Your task to perform on an android device: open device folders in google photos Image 0: 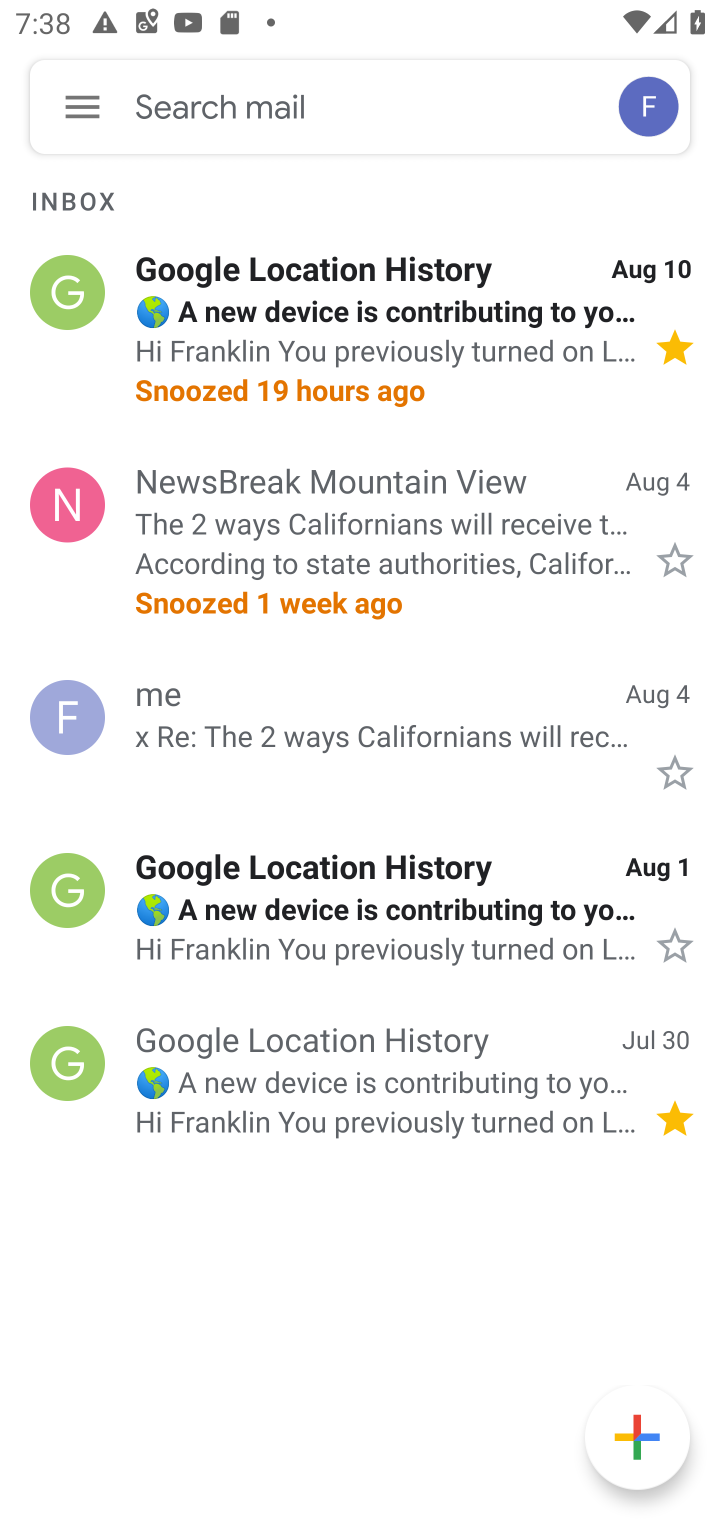
Step 0: press home button
Your task to perform on an android device: open device folders in google photos Image 1: 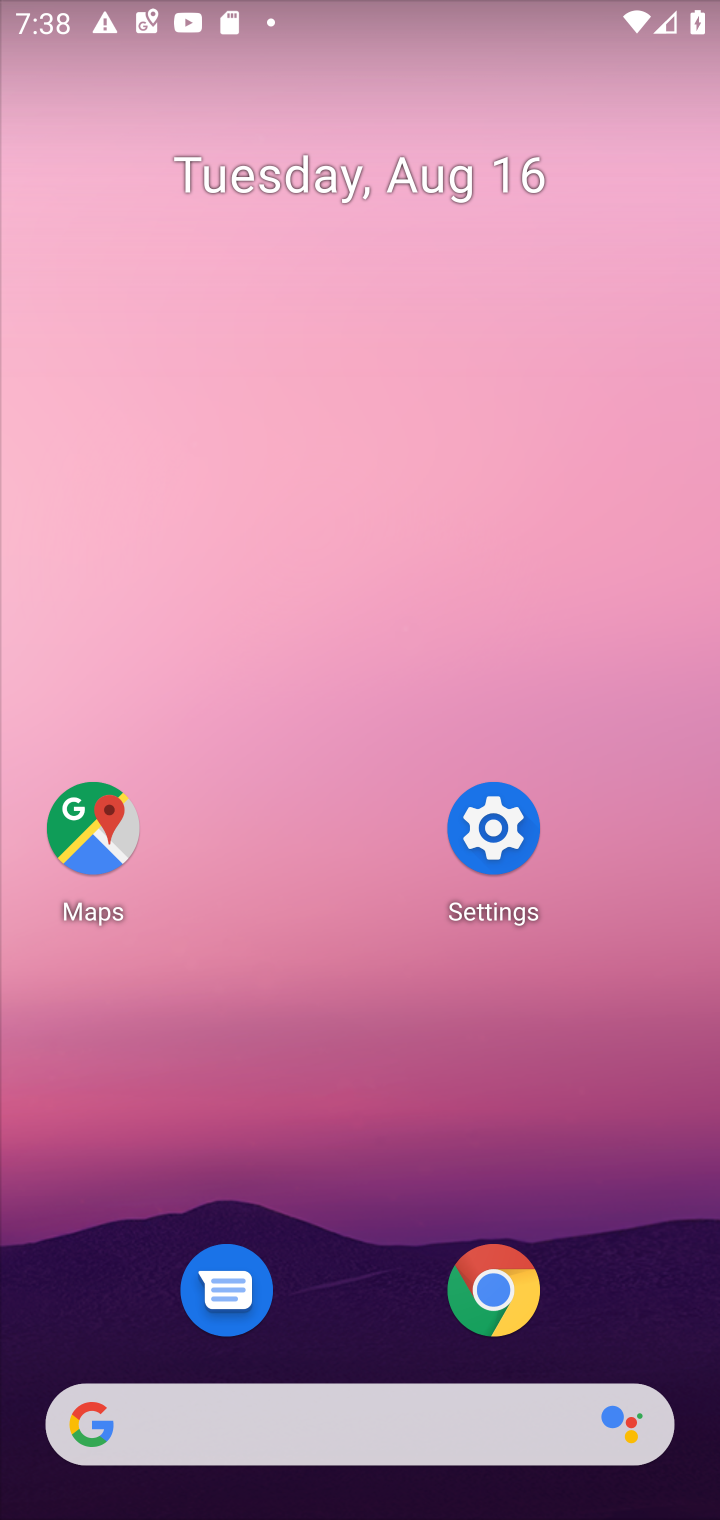
Step 1: drag from (408, 1431) to (432, 323)
Your task to perform on an android device: open device folders in google photos Image 2: 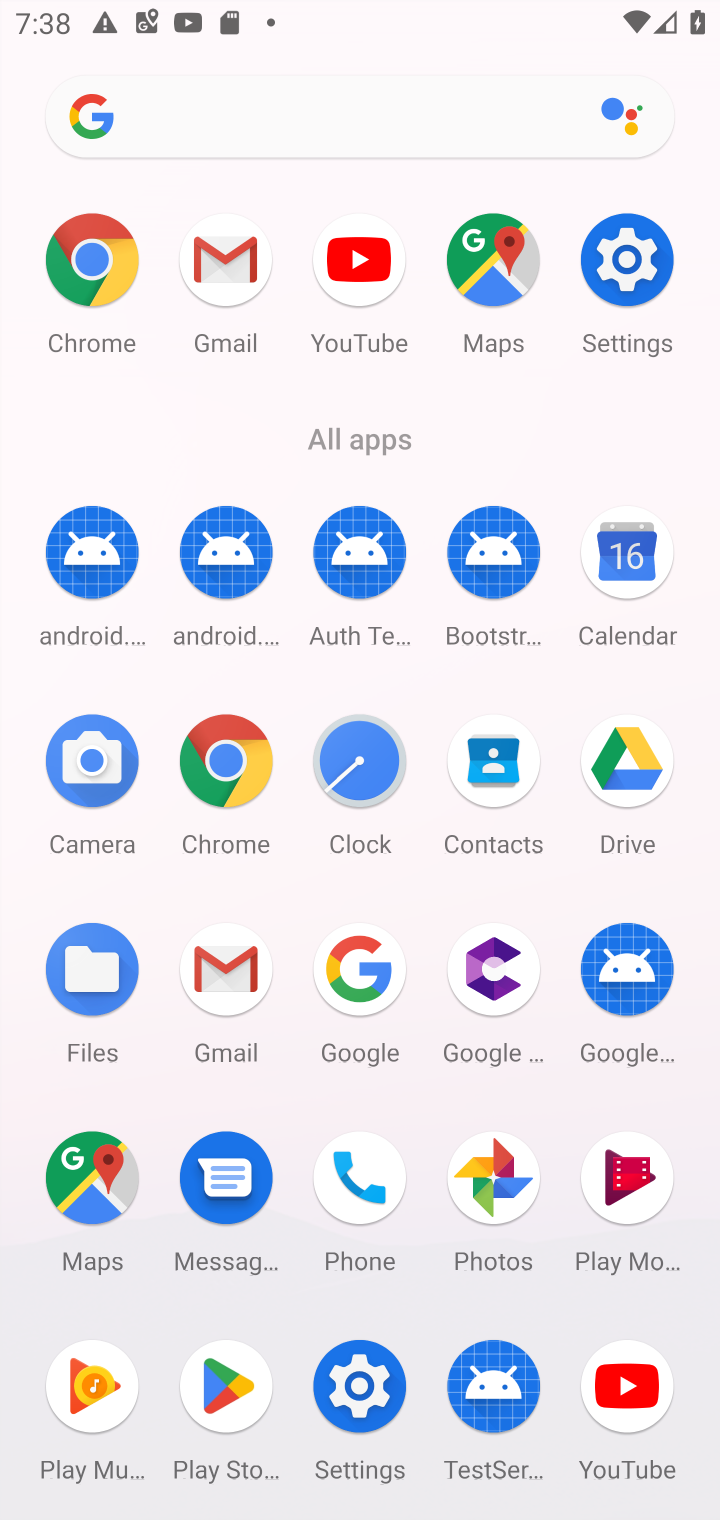
Step 2: click (502, 1169)
Your task to perform on an android device: open device folders in google photos Image 3: 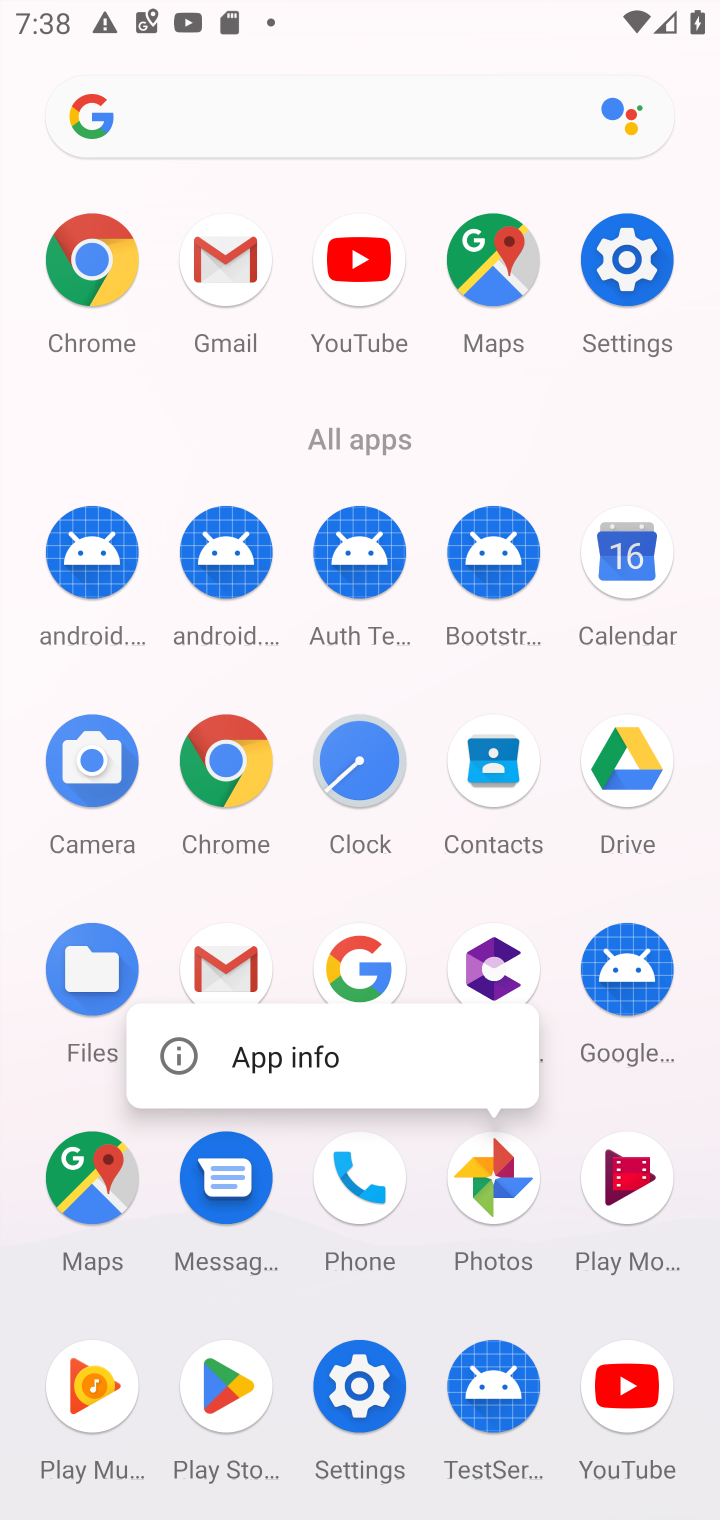
Step 3: click (488, 1178)
Your task to perform on an android device: open device folders in google photos Image 4: 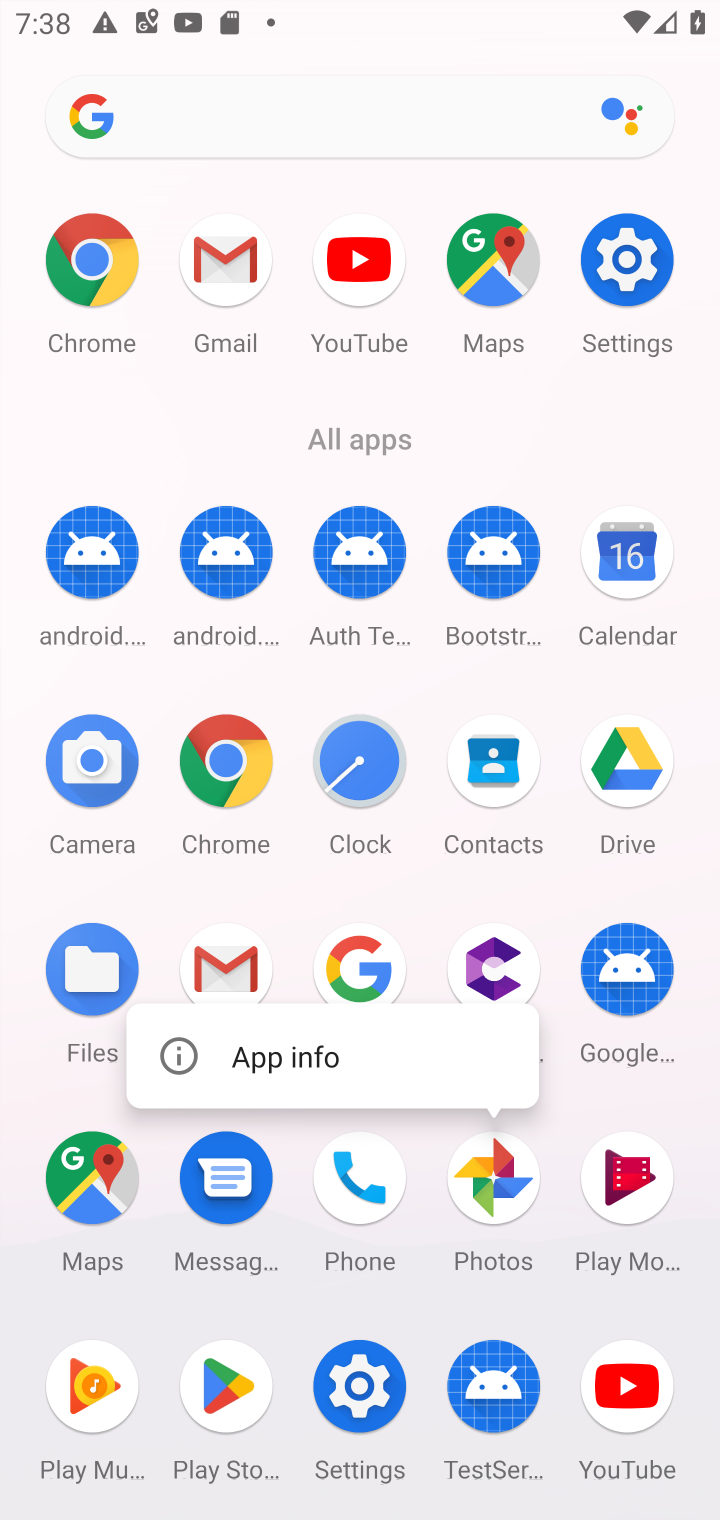
Step 4: click (492, 1186)
Your task to perform on an android device: open device folders in google photos Image 5: 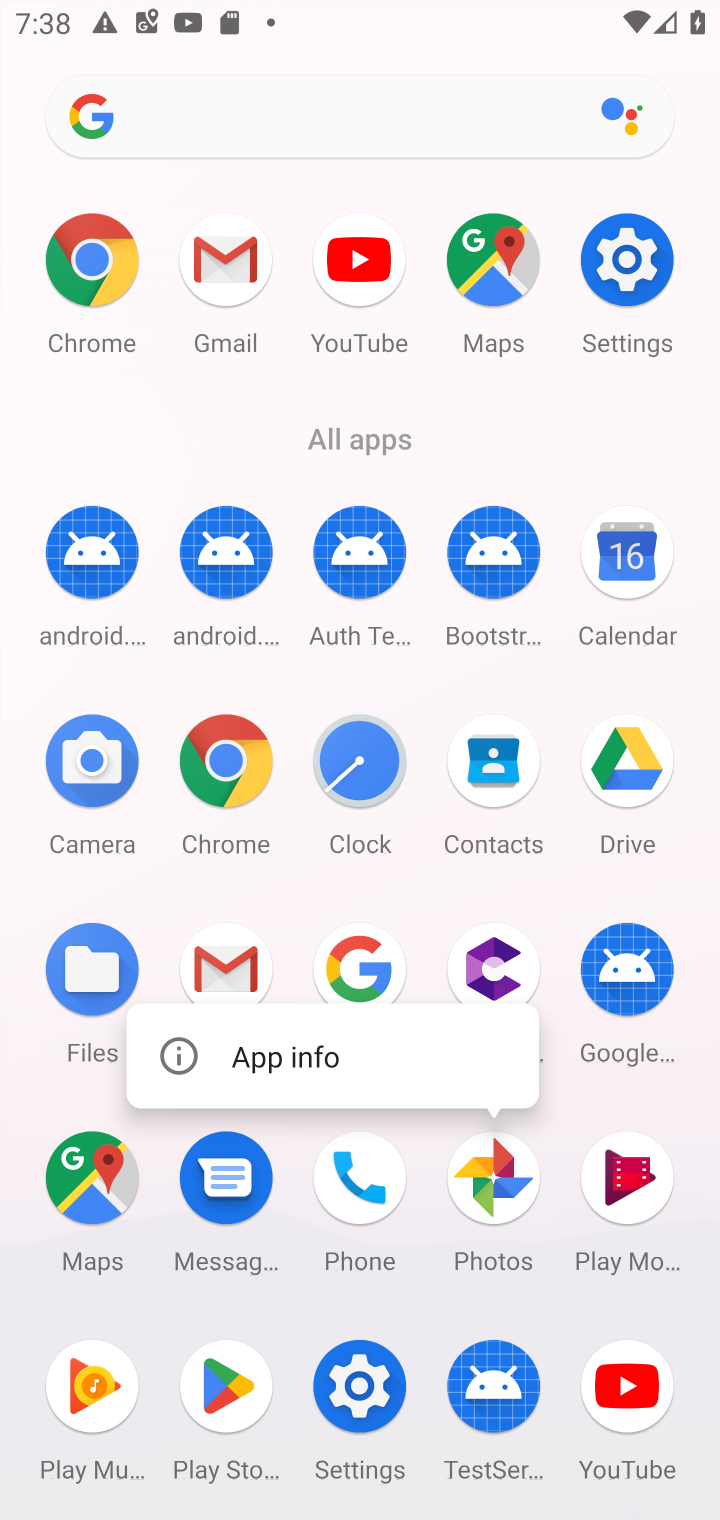
Step 5: click (501, 1190)
Your task to perform on an android device: open device folders in google photos Image 6: 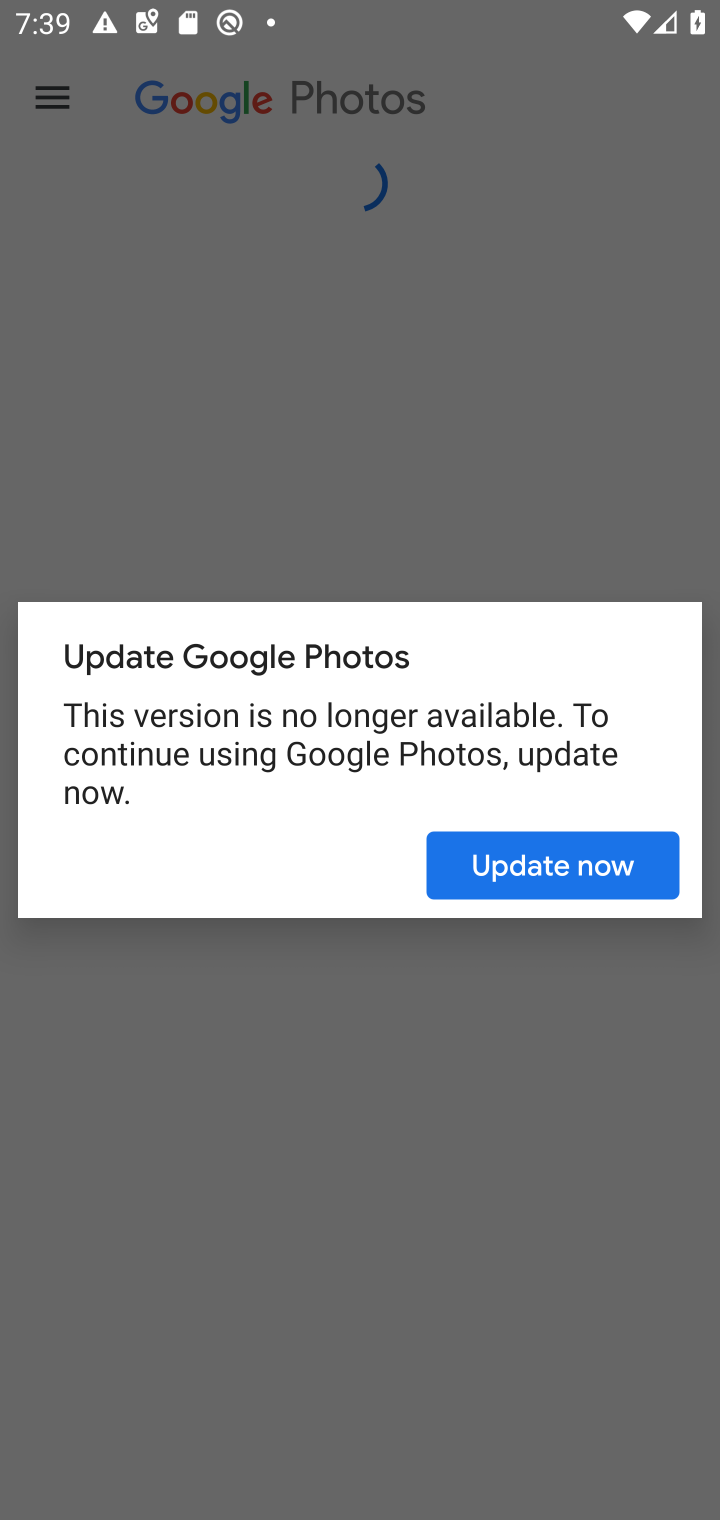
Step 6: click (562, 870)
Your task to perform on an android device: open device folders in google photos Image 7: 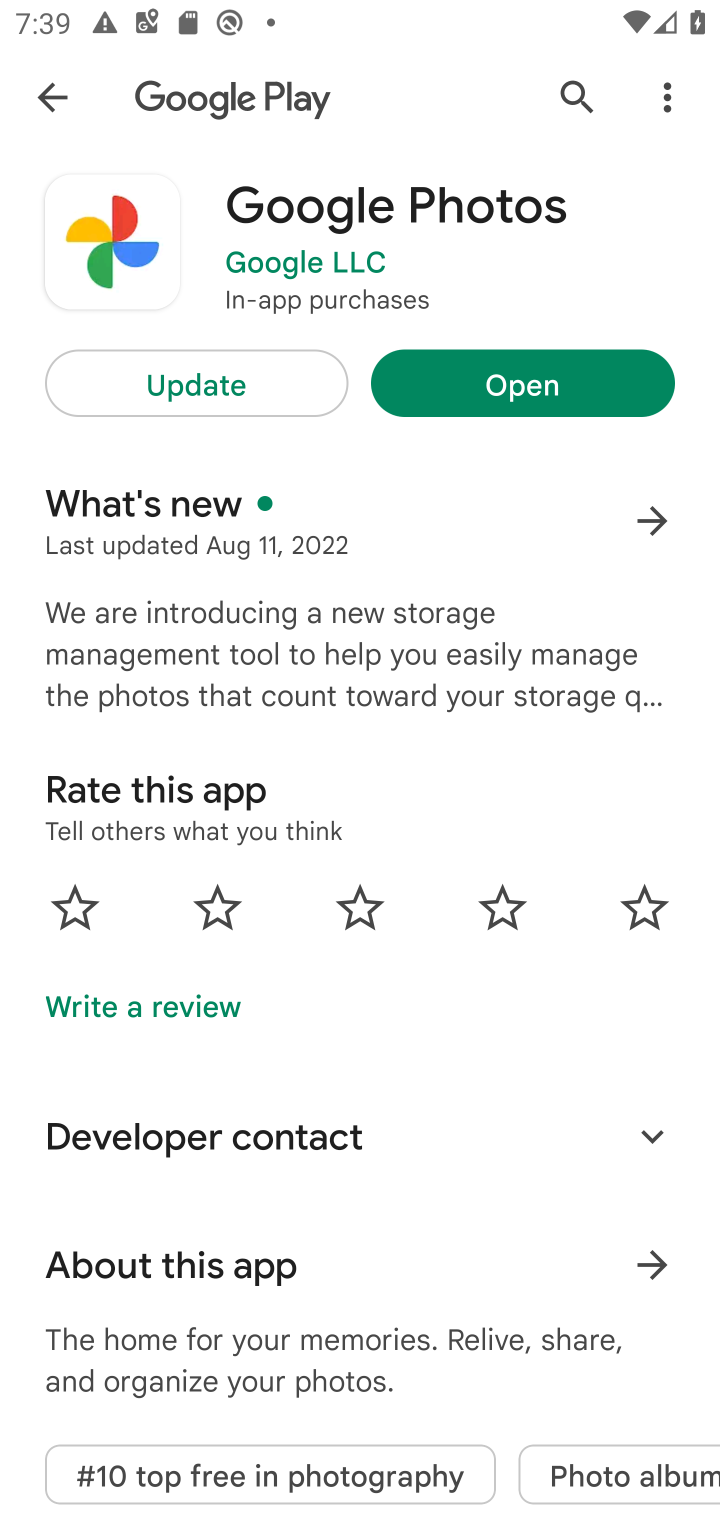
Step 7: click (213, 386)
Your task to perform on an android device: open device folders in google photos Image 8: 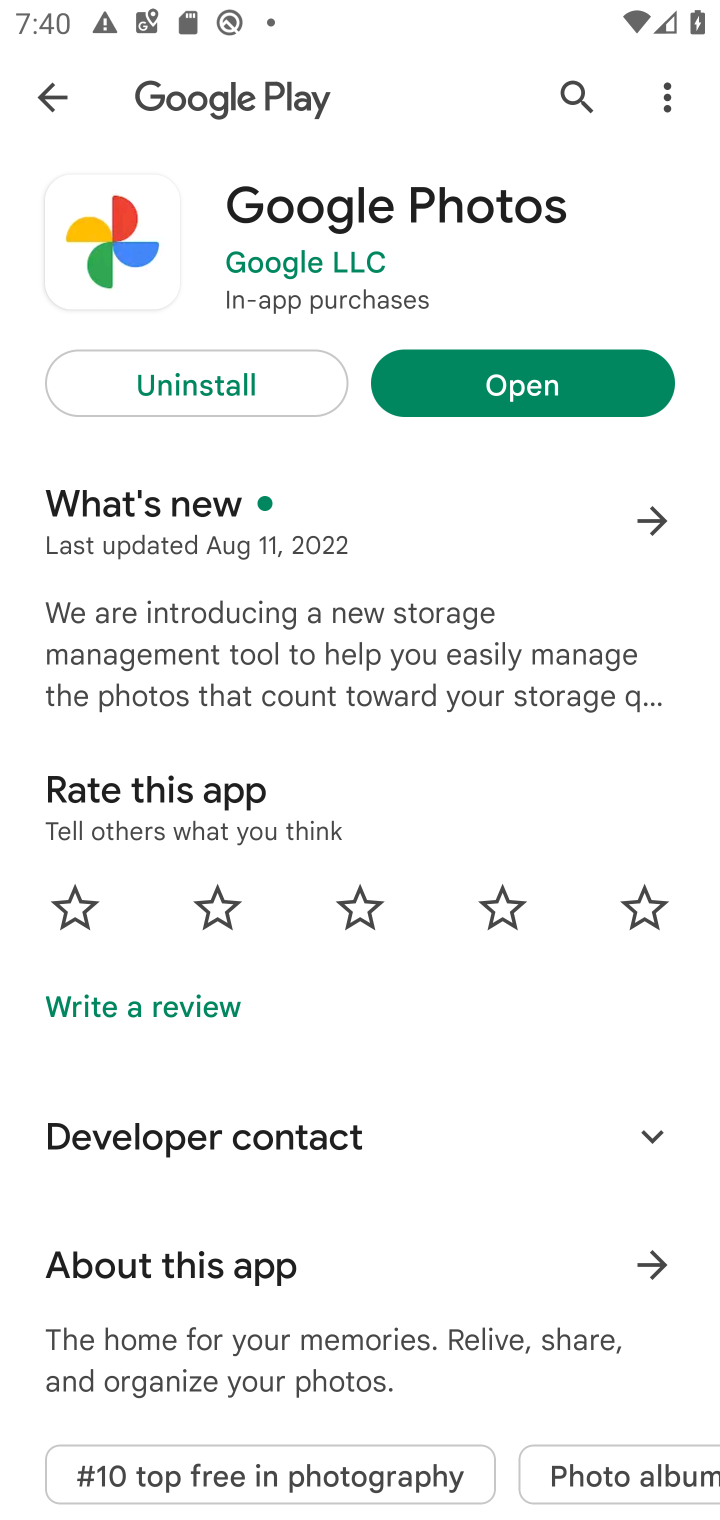
Step 8: click (522, 378)
Your task to perform on an android device: open device folders in google photos Image 9: 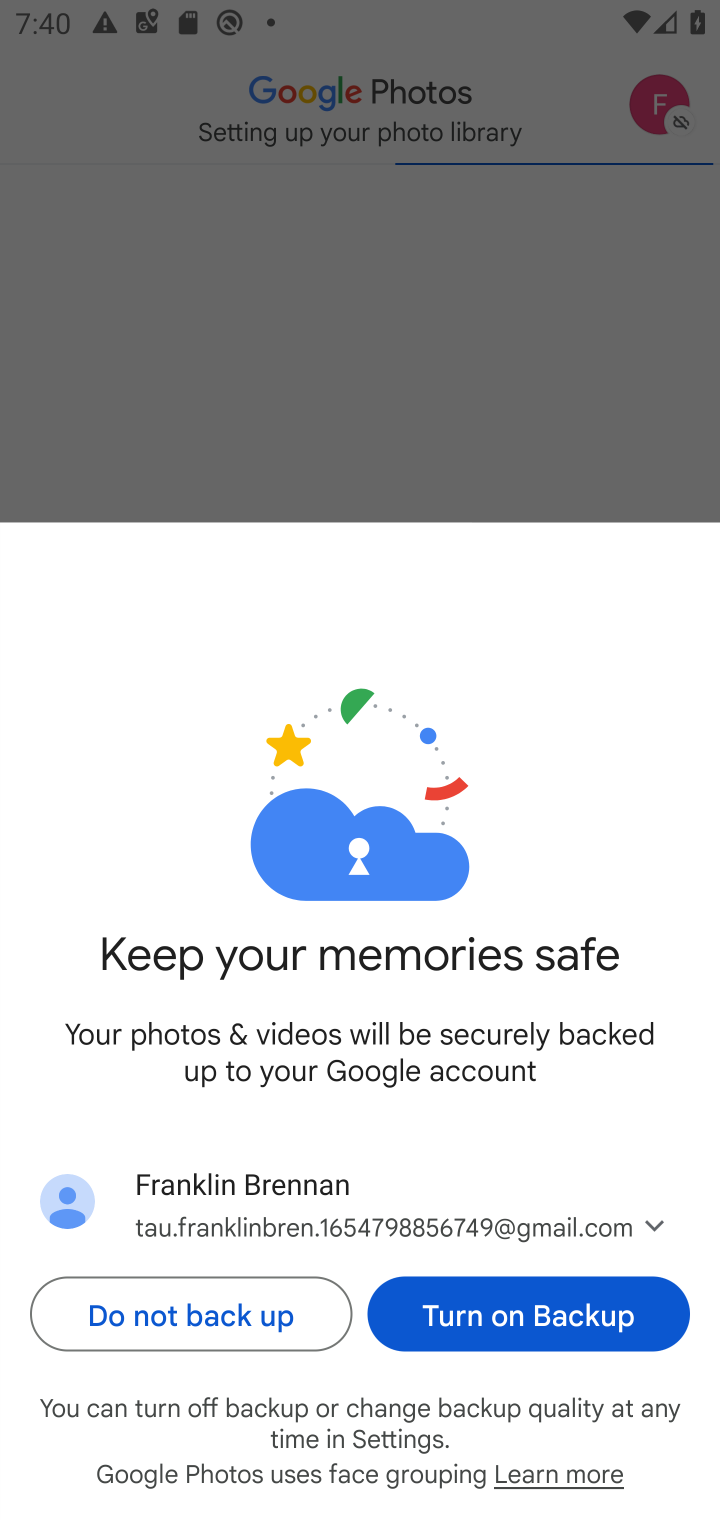
Step 9: click (507, 1325)
Your task to perform on an android device: open device folders in google photos Image 10: 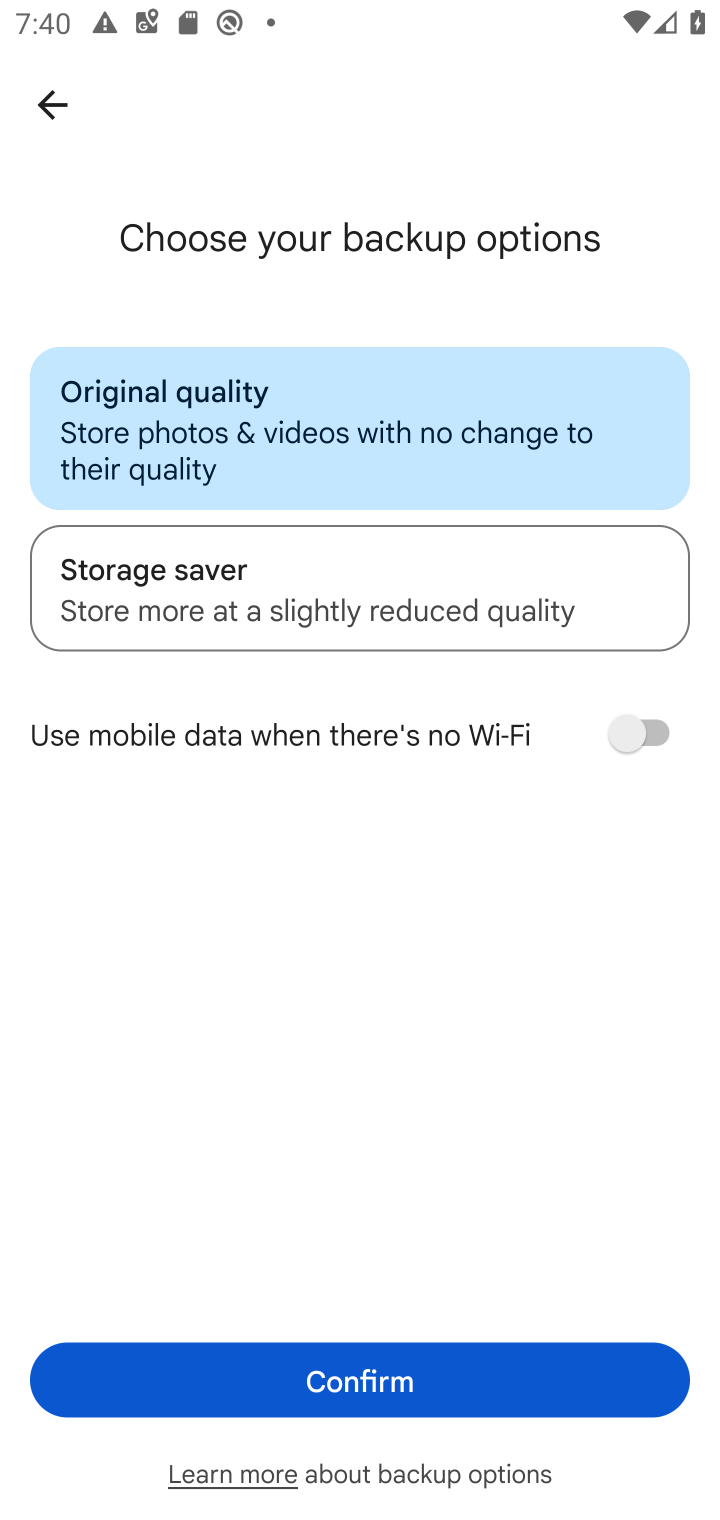
Step 10: click (451, 1383)
Your task to perform on an android device: open device folders in google photos Image 11: 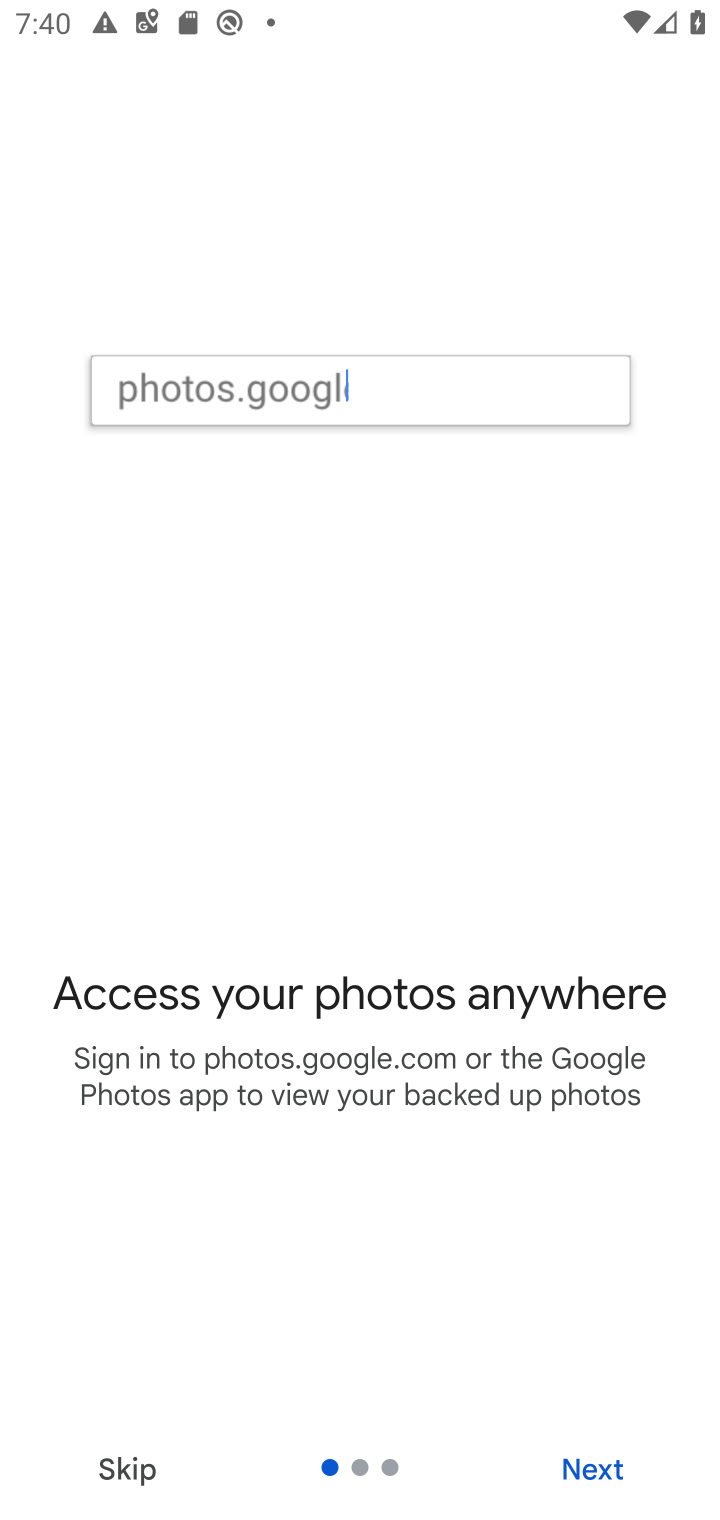
Step 11: click (591, 1460)
Your task to perform on an android device: open device folders in google photos Image 12: 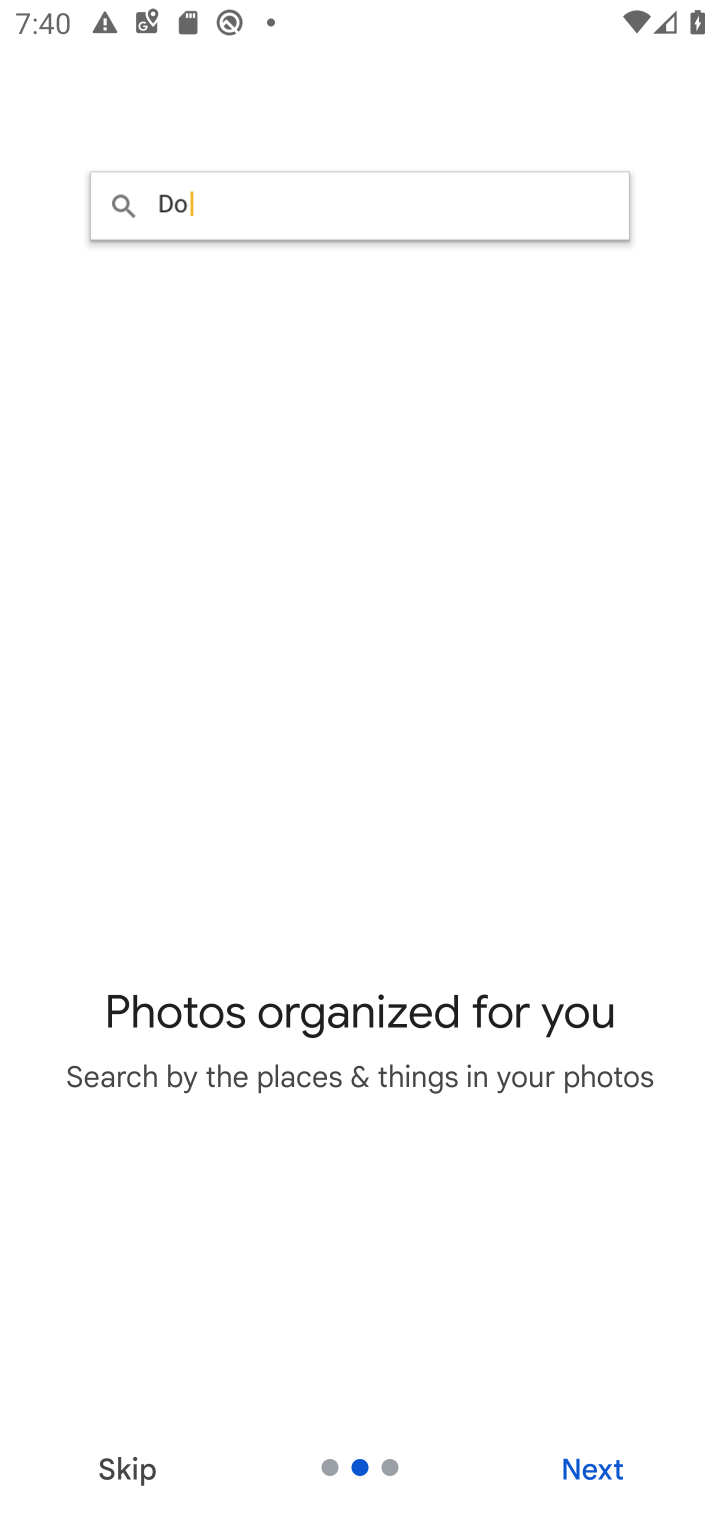
Step 12: click (591, 1466)
Your task to perform on an android device: open device folders in google photos Image 13: 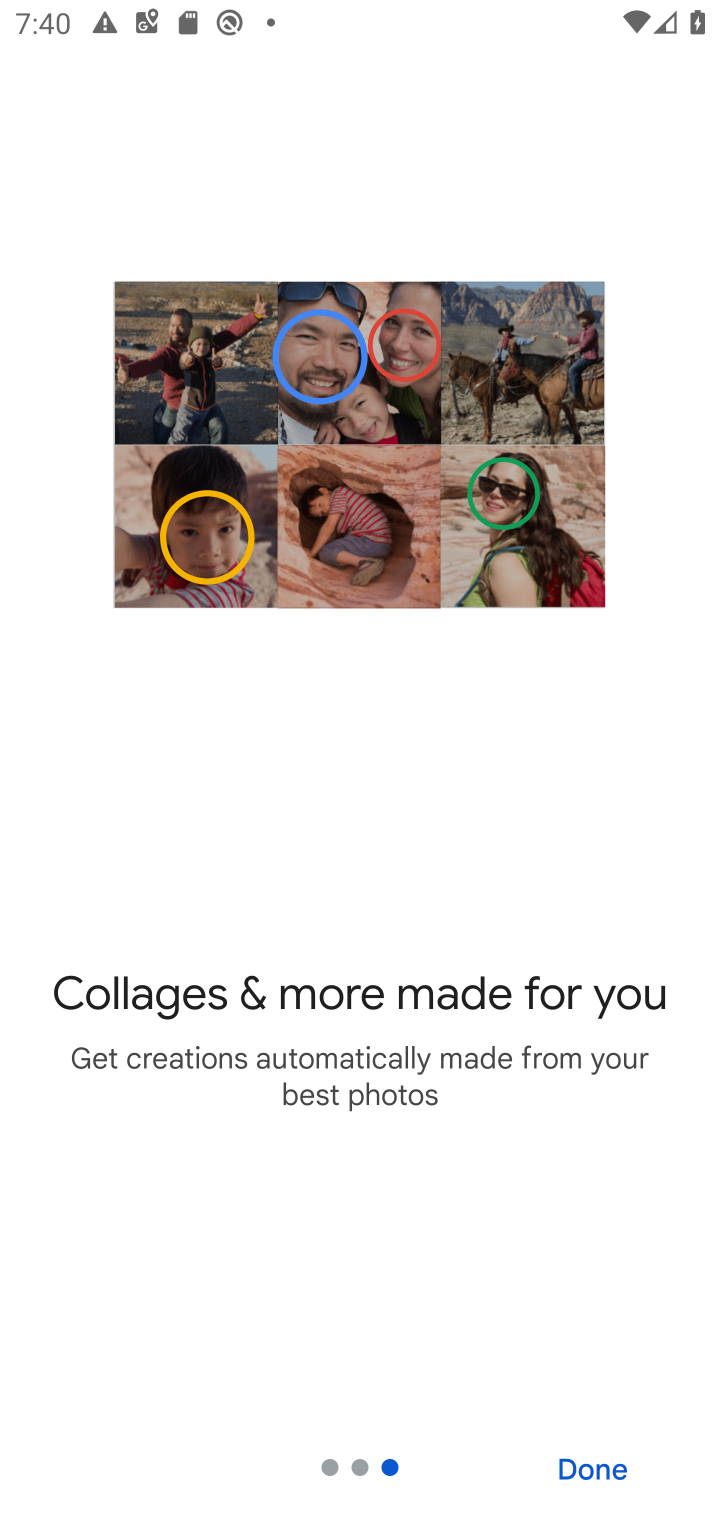
Step 13: click (591, 1468)
Your task to perform on an android device: open device folders in google photos Image 14: 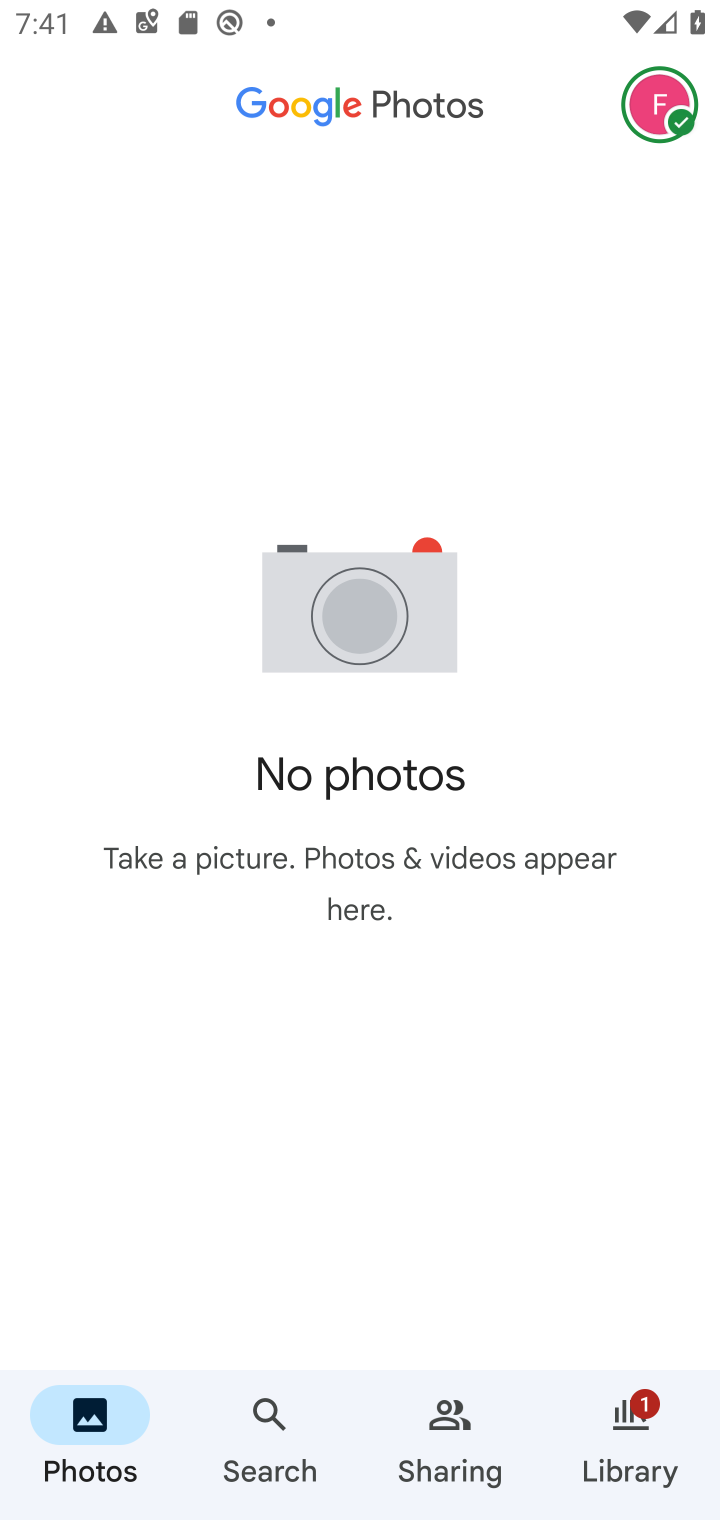
Step 14: click (626, 1431)
Your task to perform on an android device: open device folders in google photos Image 15: 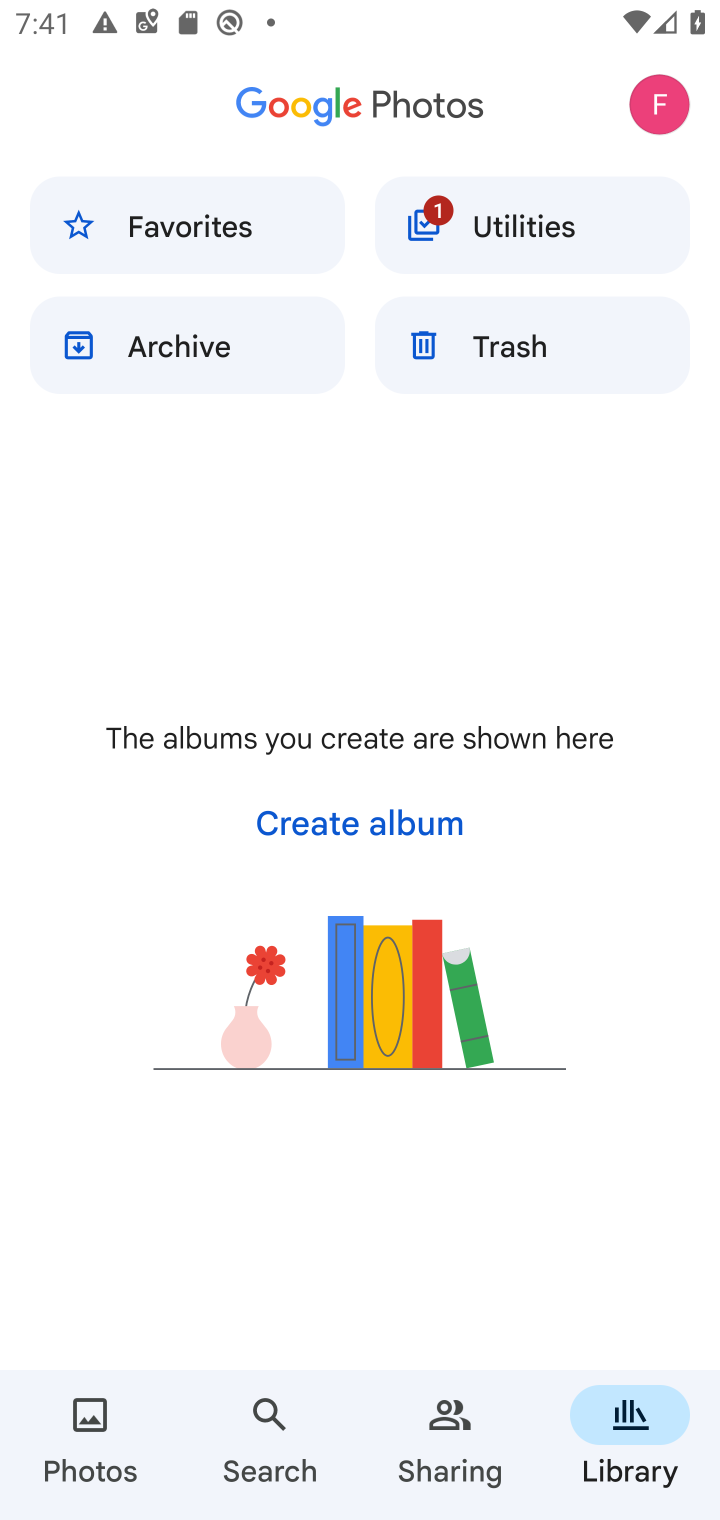
Step 15: task complete